Your task to perform on an android device: open a bookmark in the chrome app Image 0: 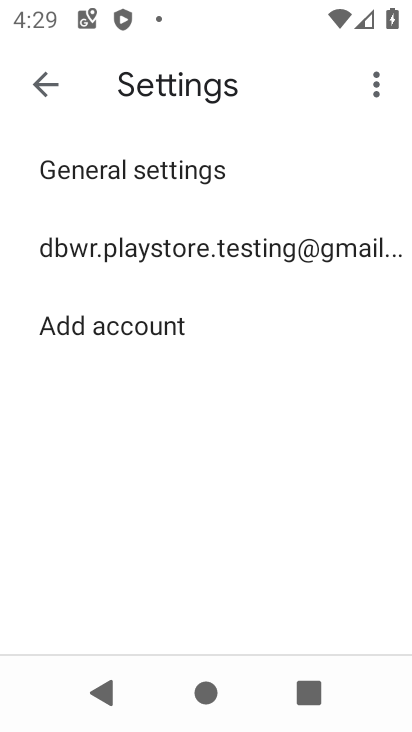
Step 0: press home button
Your task to perform on an android device: open a bookmark in the chrome app Image 1: 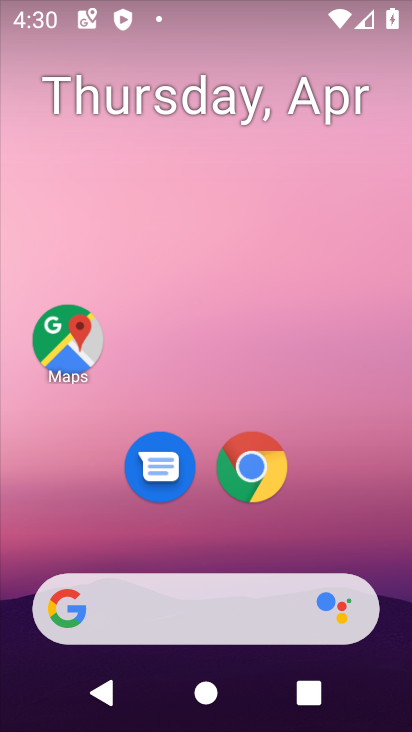
Step 1: drag from (204, 548) to (235, 272)
Your task to perform on an android device: open a bookmark in the chrome app Image 2: 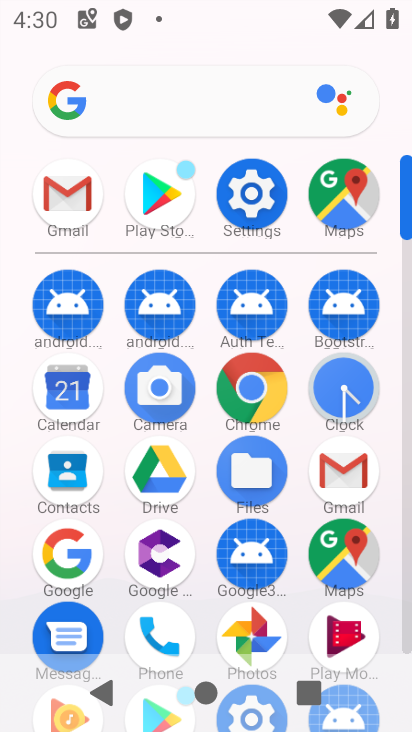
Step 2: click (259, 382)
Your task to perform on an android device: open a bookmark in the chrome app Image 3: 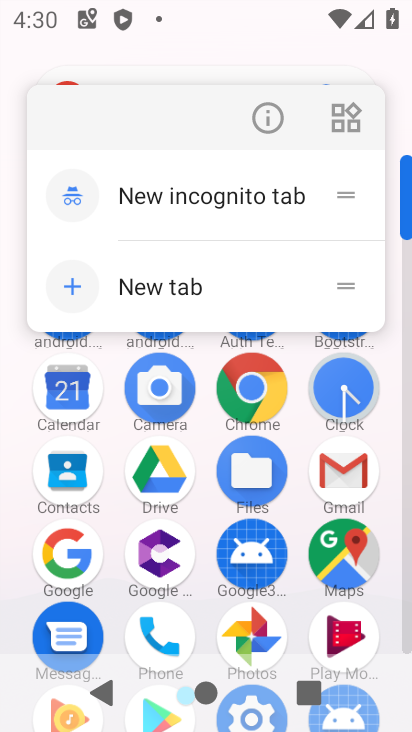
Step 3: click (257, 393)
Your task to perform on an android device: open a bookmark in the chrome app Image 4: 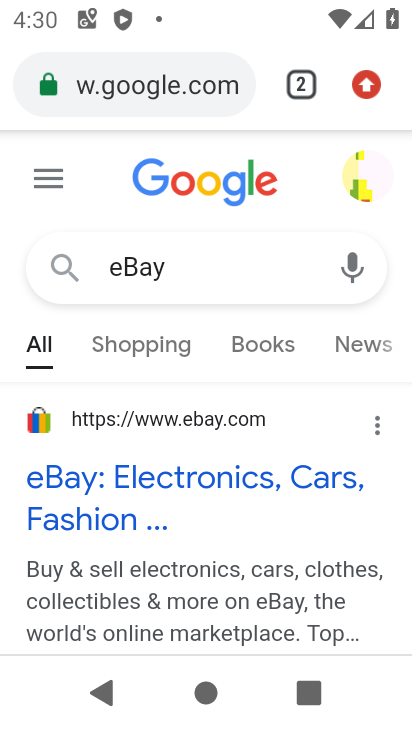
Step 4: click (363, 70)
Your task to perform on an android device: open a bookmark in the chrome app Image 5: 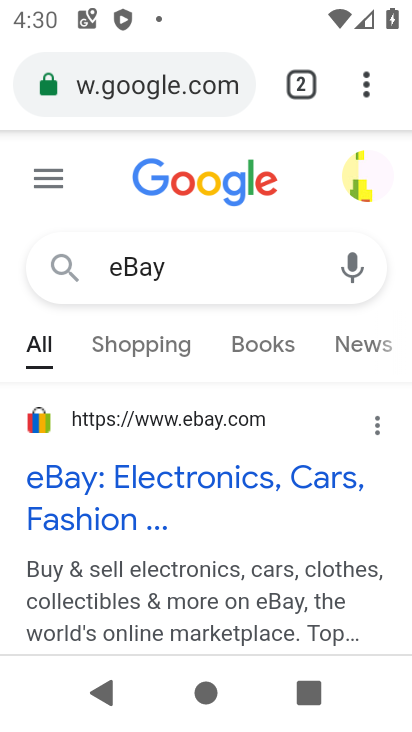
Step 5: click (360, 95)
Your task to perform on an android device: open a bookmark in the chrome app Image 6: 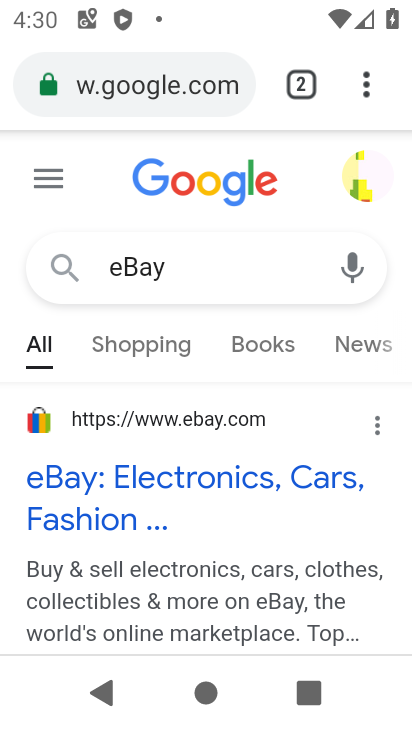
Step 6: click (367, 83)
Your task to perform on an android device: open a bookmark in the chrome app Image 7: 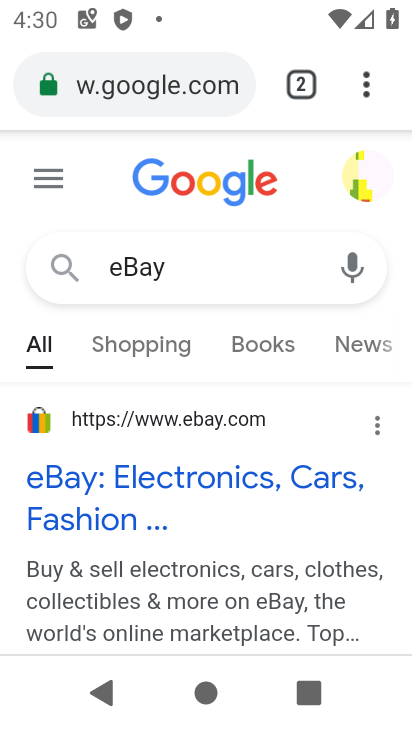
Step 7: click (354, 103)
Your task to perform on an android device: open a bookmark in the chrome app Image 8: 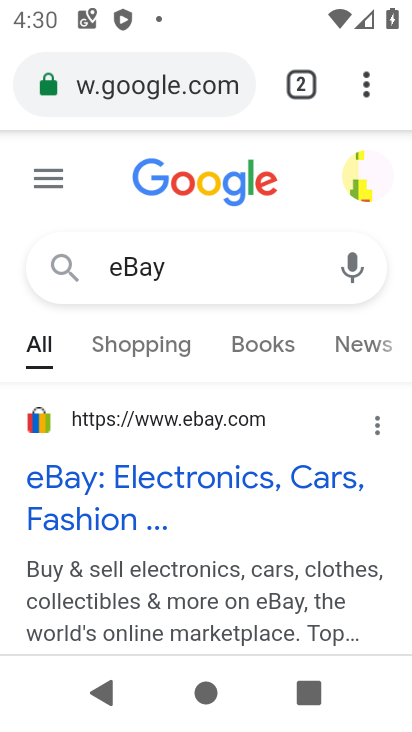
Step 8: click (371, 100)
Your task to perform on an android device: open a bookmark in the chrome app Image 9: 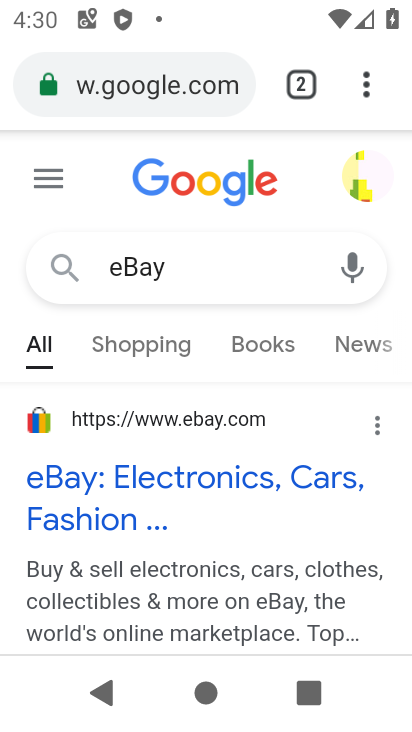
Step 9: click (369, 93)
Your task to perform on an android device: open a bookmark in the chrome app Image 10: 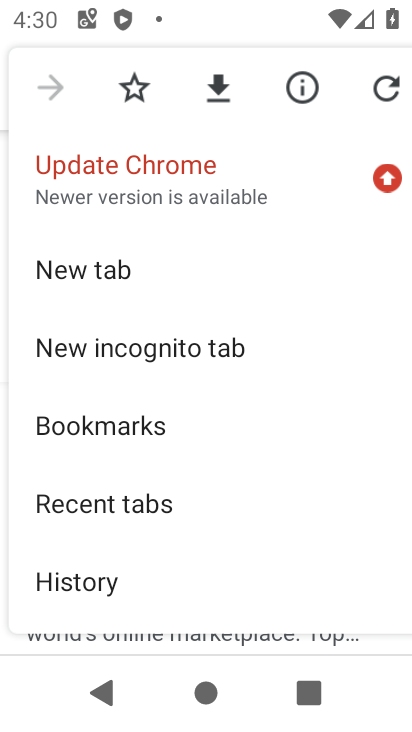
Step 10: drag from (103, 587) to (142, 458)
Your task to perform on an android device: open a bookmark in the chrome app Image 11: 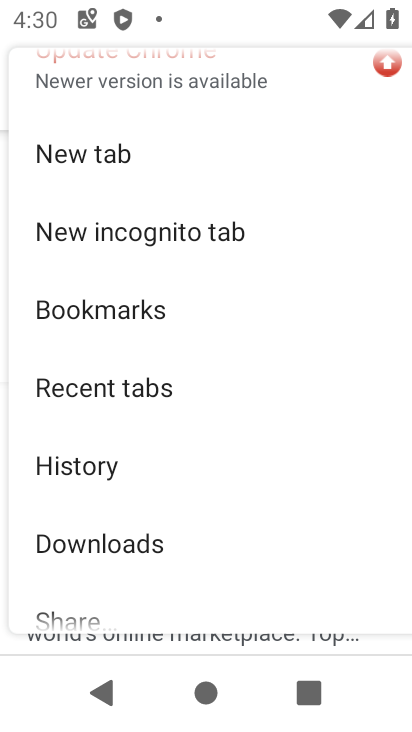
Step 11: click (95, 320)
Your task to perform on an android device: open a bookmark in the chrome app Image 12: 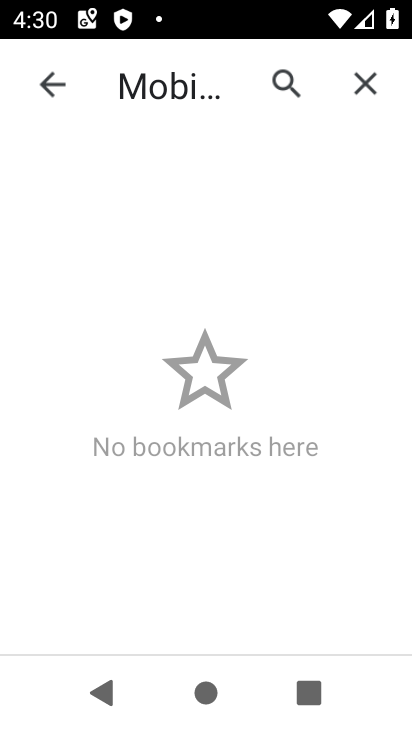
Step 12: task complete